Your task to perform on an android device: Is it going to rain tomorrow? Image 0: 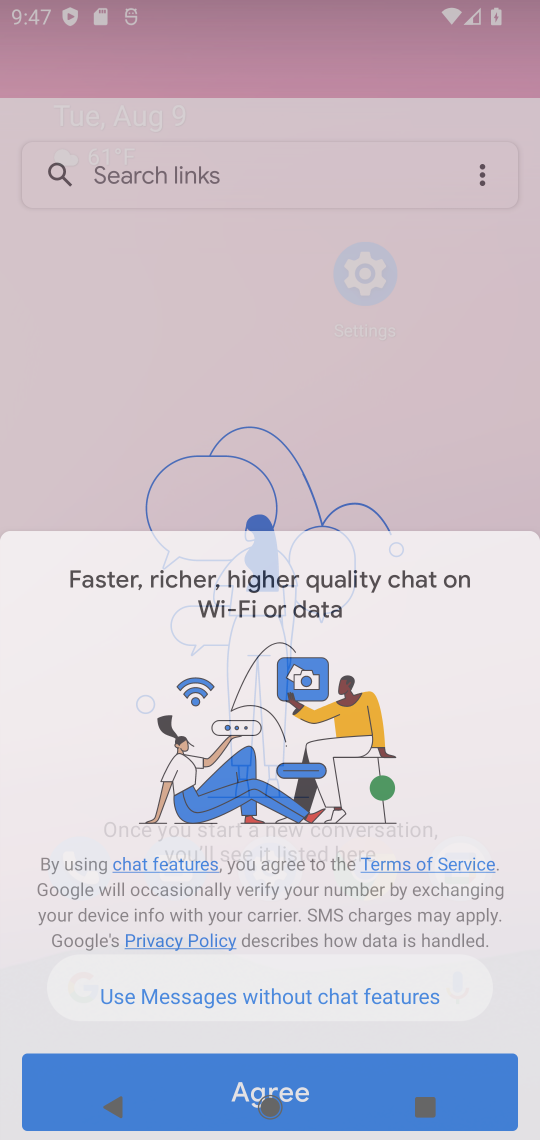
Step 0: press home button
Your task to perform on an android device: Is it going to rain tomorrow? Image 1: 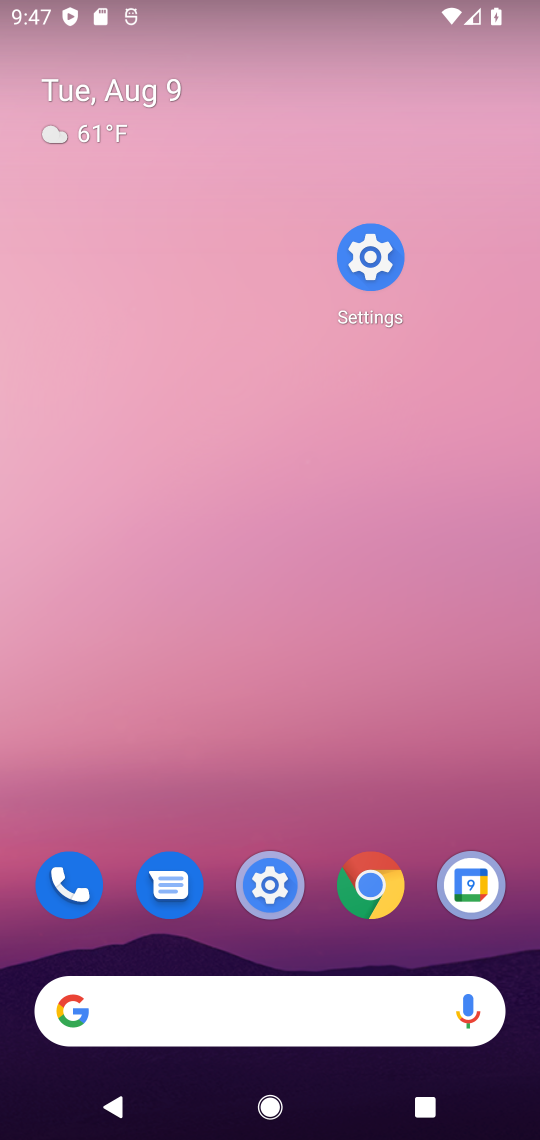
Step 1: press home button
Your task to perform on an android device: Is it going to rain tomorrow? Image 2: 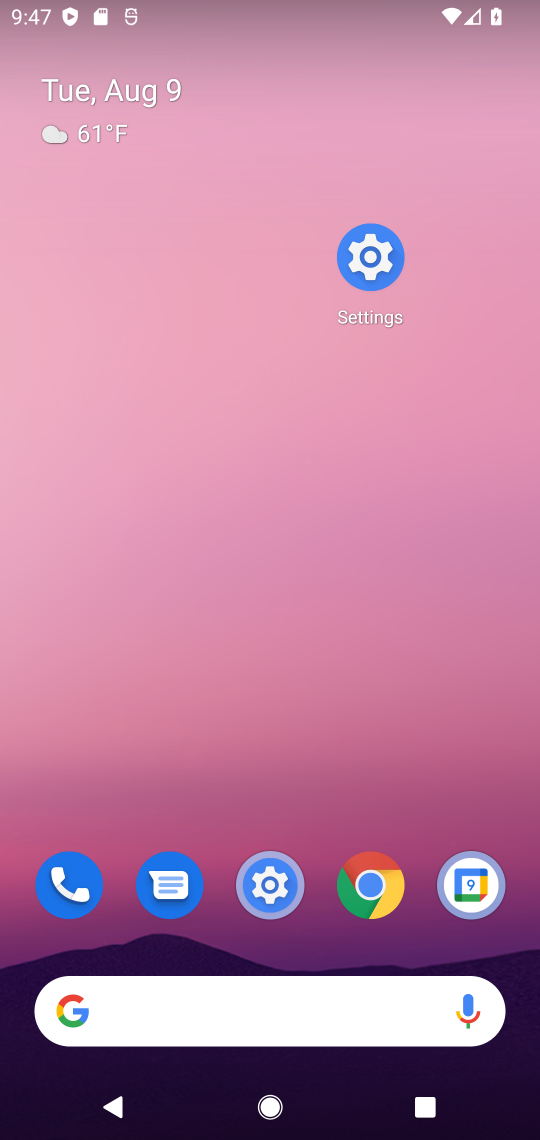
Step 2: press home button
Your task to perform on an android device: Is it going to rain tomorrow? Image 3: 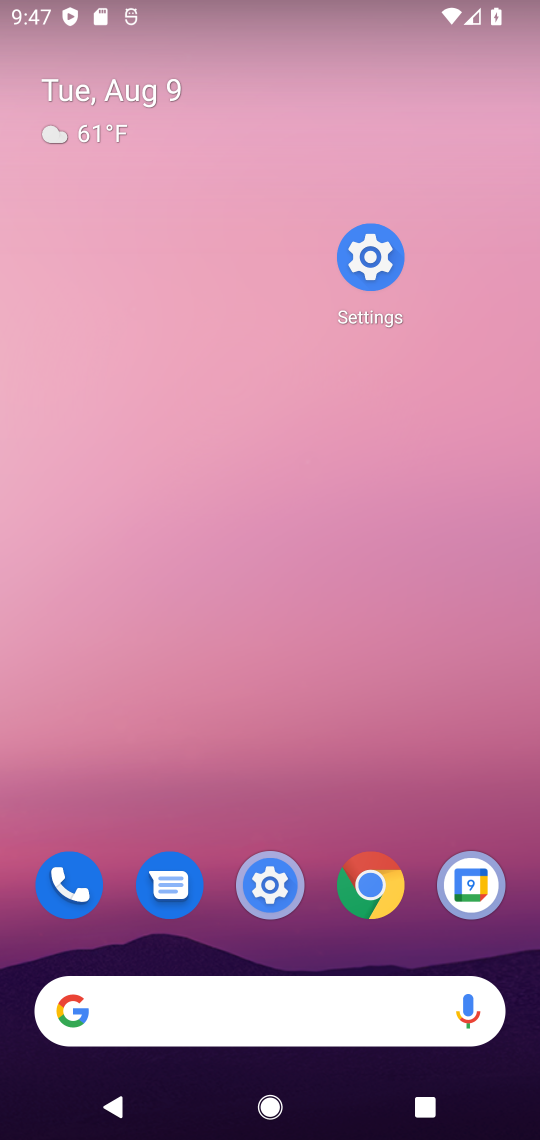
Step 3: drag from (295, 824) to (303, 28)
Your task to perform on an android device: Is it going to rain tomorrow? Image 4: 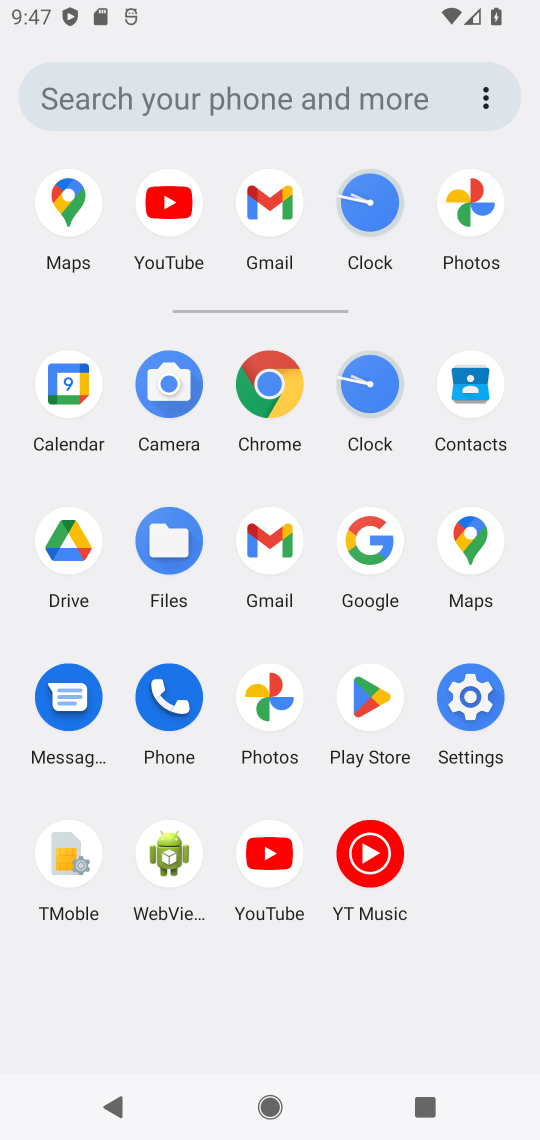
Step 4: click (155, 97)
Your task to perform on an android device: Is it going to rain tomorrow? Image 5: 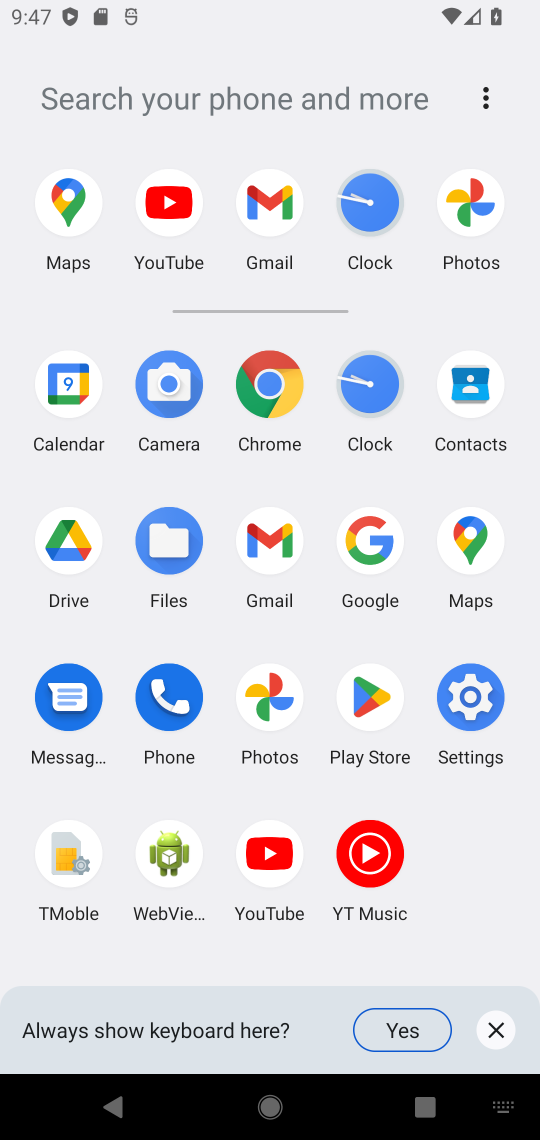
Step 5: type "weather"
Your task to perform on an android device: Is it going to rain tomorrow? Image 6: 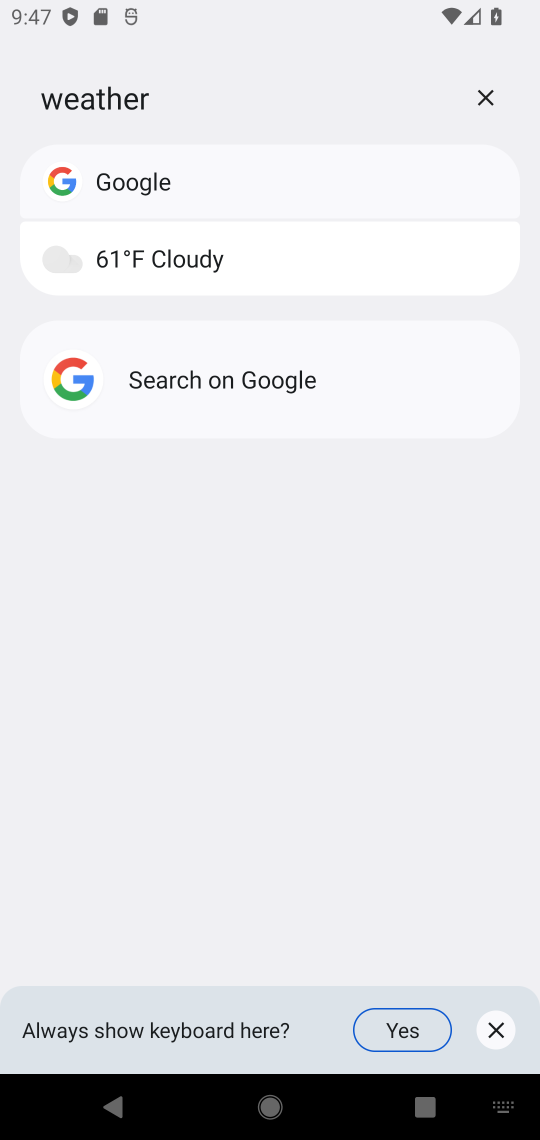
Step 6: click (183, 255)
Your task to perform on an android device: Is it going to rain tomorrow? Image 7: 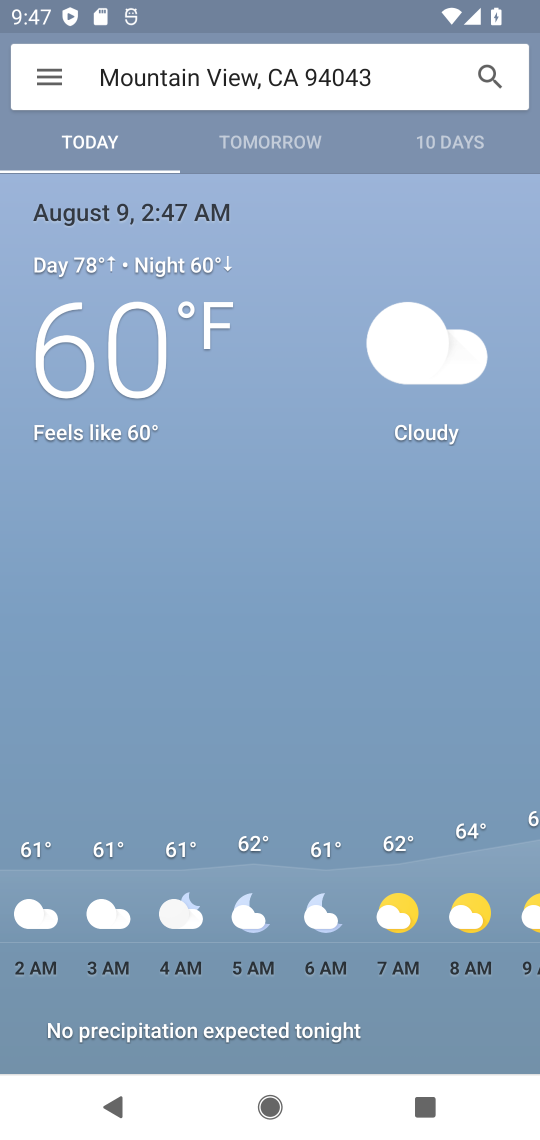
Step 7: drag from (467, 908) to (154, 916)
Your task to perform on an android device: Is it going to rain tomorrow? Image 8: 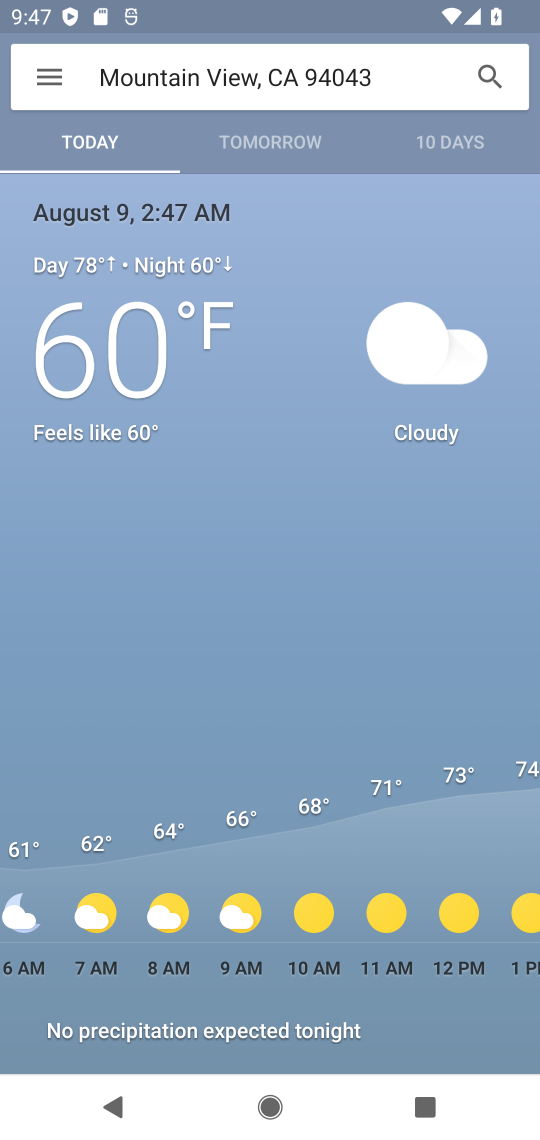
Step 8: drag from (457, 913) to (29, 952)
Your task to perform on an android device: Is it going to rain tomorrow? Image 9: 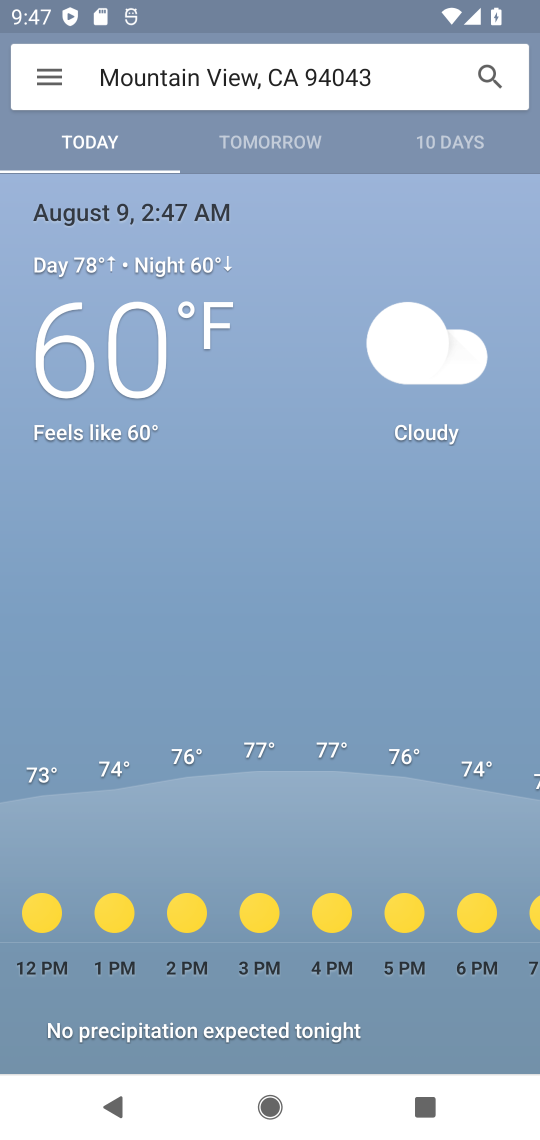
Step 9: drag from (480, 914) to (46, 953)
Your task to perform on an android device: Is it going to rain tomorrow? Image 10: 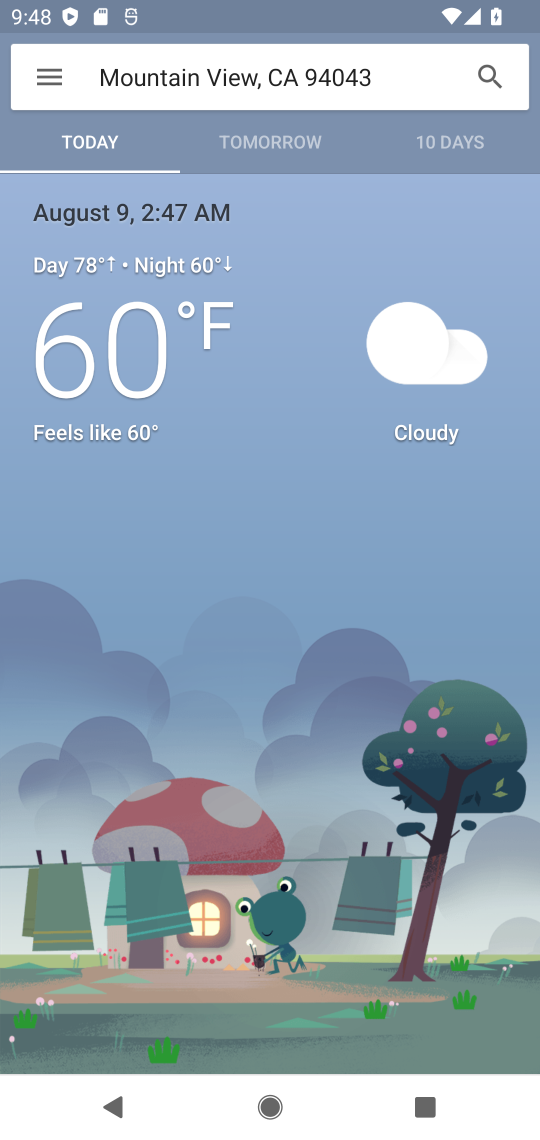
Step 10: click (260, 136)
Your task to perform on an android device: Is it going to rain tomorrow? Image 11: 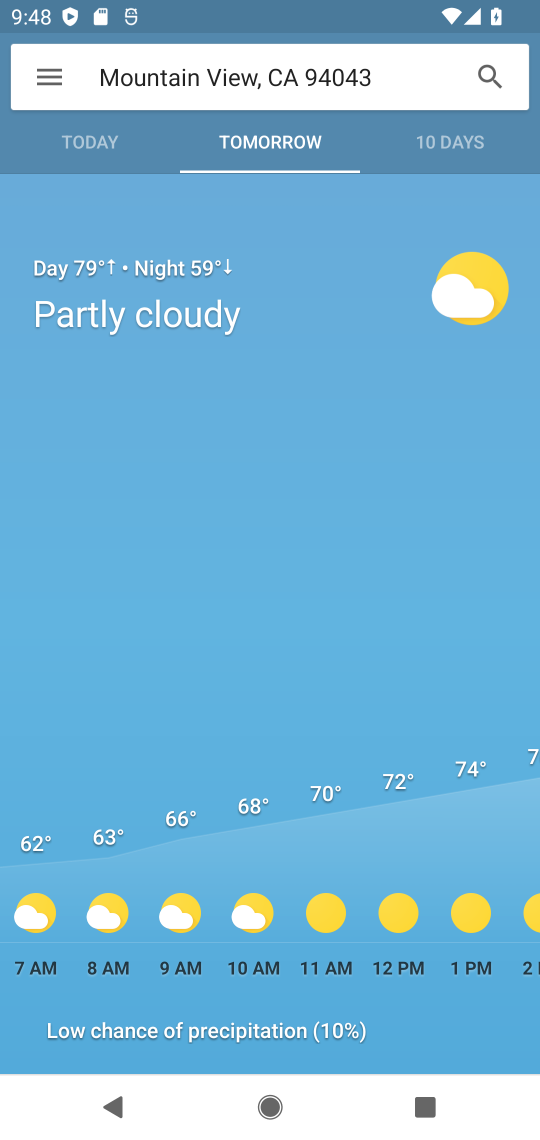
Step 11: task complete